Your task to perform on an android device: see tabs open on other devices in the chrome app Image 0: 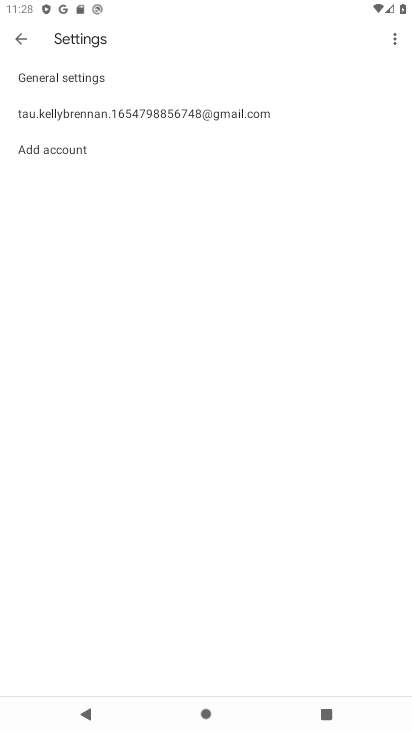
Step 0: press home button
Your task to perform on an android device: see tabs open on other devices in the chrome app Image 1: 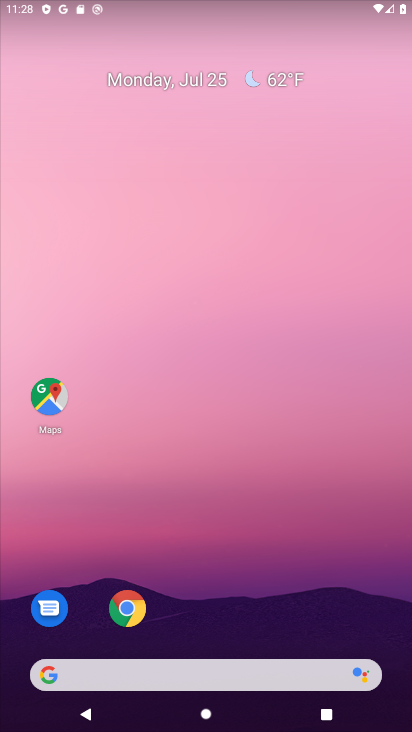
Step 1: drag from (258, 508) to (202, 29)
Your task to perform on an android device: see tabs open on other devices in the chrome app Image 2: 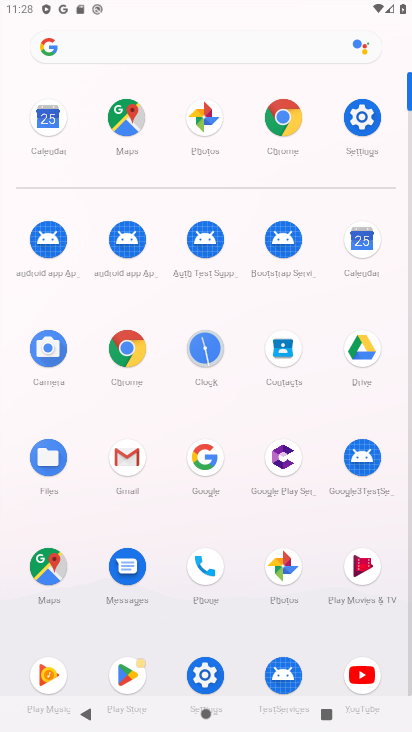
Step 2: click (287, 116)
Your task to perform on an android device: see tabs open on other devices in the chrome app Image 3: 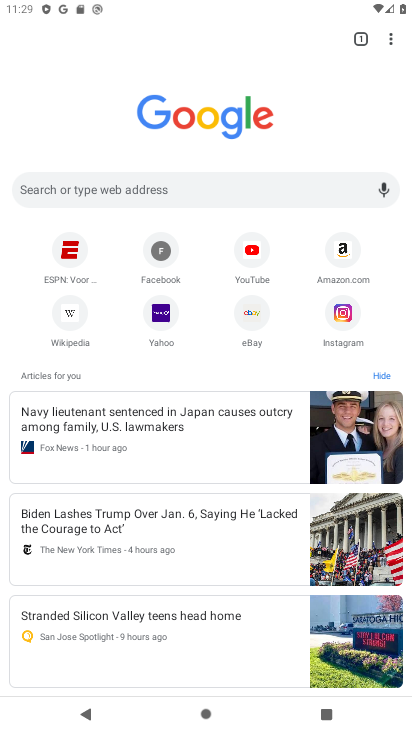
Step 3: click (389, 42)
Your task to perform on an android device: see tabs open on other devices in the chrome app Image 4: 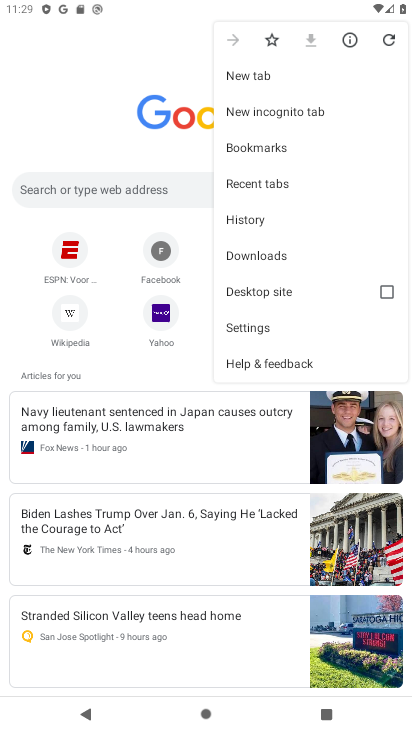
Step 4: click (261, 78)
Your task to perform on an android device: see tabs open on other devices in the chrome app Image 5: 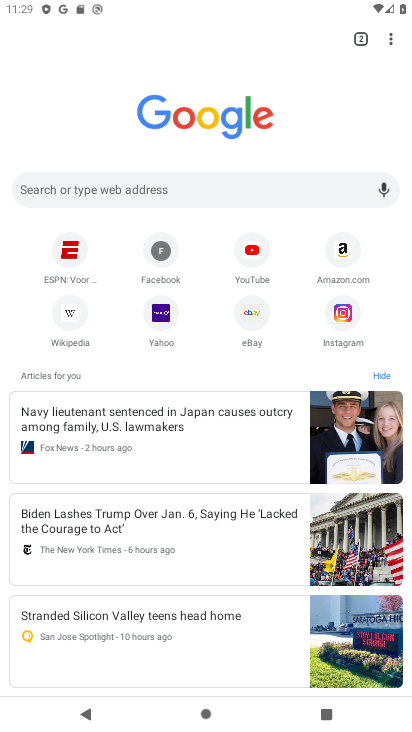
Step 5: task complete